Your task to perform on an android device: Go to Reddit.com Image 0: 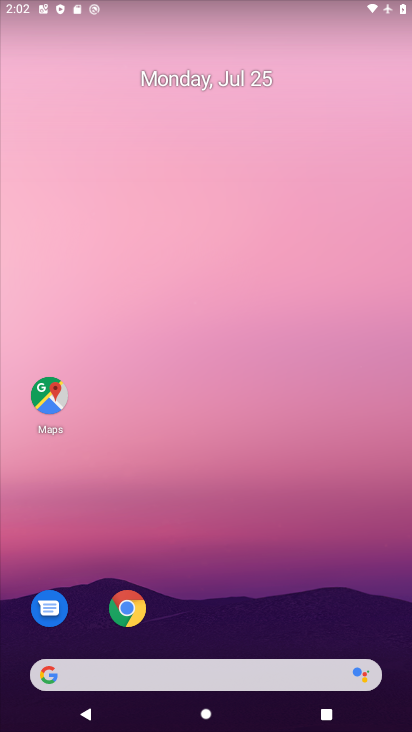
Step 0: press home button
Your task to perform on an android device: Go to Reddit.com Image 1: 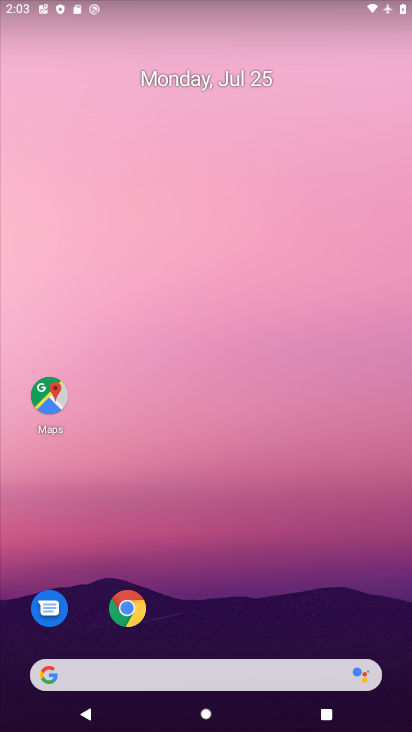
Step 1: drag from (223, 571) to (258, 66)
Your task to perform on an android device: Go to Reddit.com Image 2: 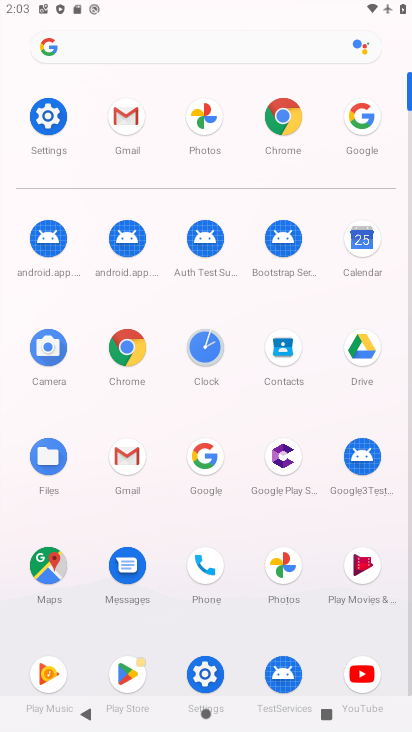
Step 2: click (277, 146)
Your task to perform on an android device: Go to Reddit.com Image 3: 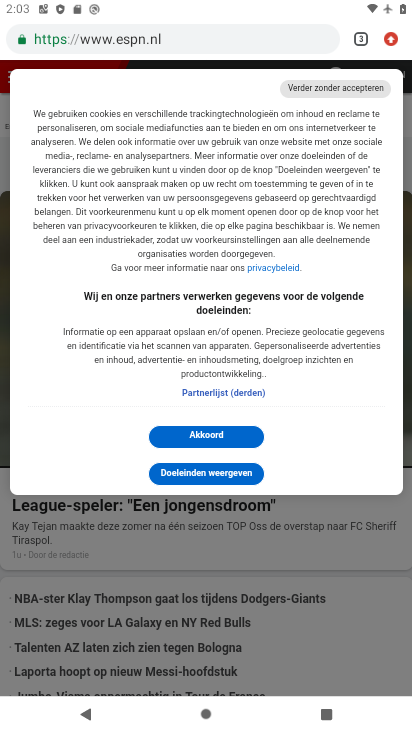
Step 3: click (221, 39)
Your task to perform on an android device: Go to Reddit.com Image 4: 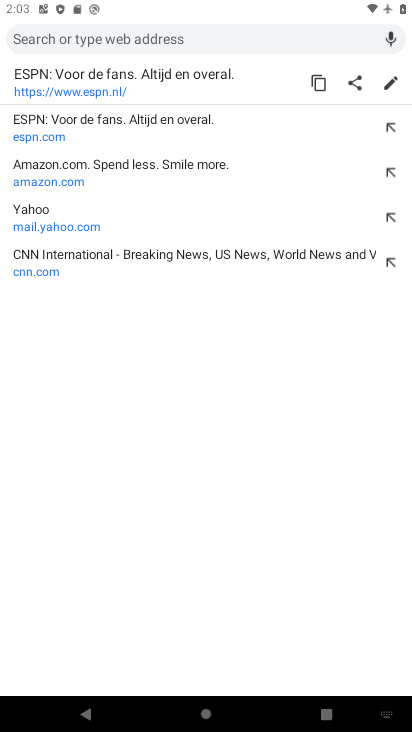
Step 4: type "reddit"
Your task to perform on an android device: Go to Reddit.com Image 5: 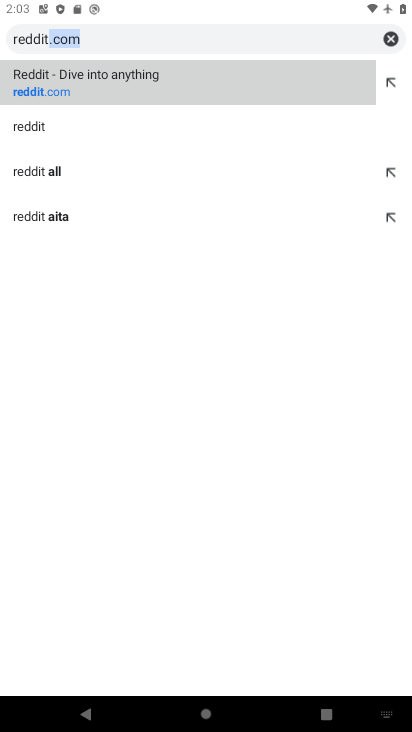
Step 5: click (229, 82)
Your task to perform on an android device: Go to Reddit.com Image 6: 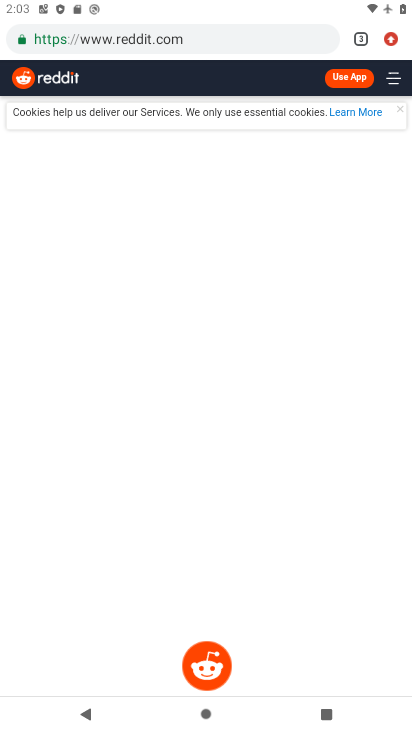
Step 6: task complete